Your task to perform on an android device: Go to location settings Image 0: 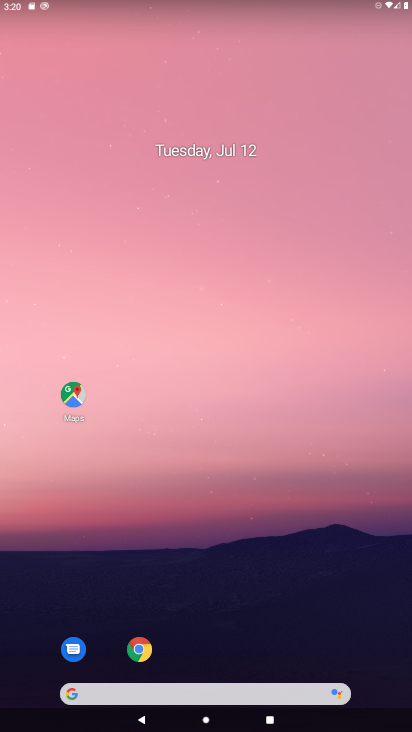
Step 0: press home button
Your task to perform on an android device: Go to location settings Image 1: 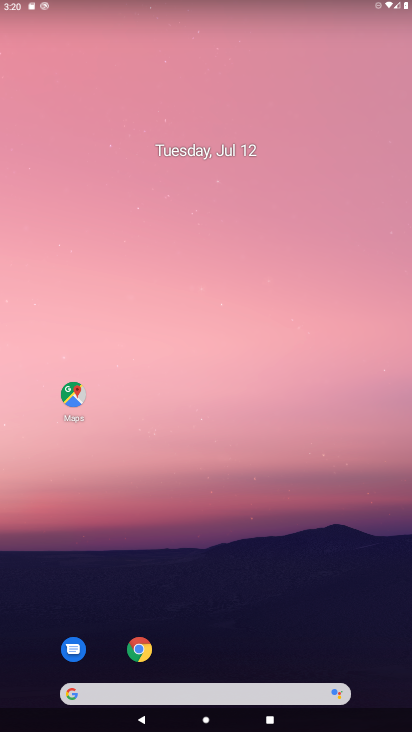
Step 1: click (223, 609)
Your task to perform on an android device: Go to location settings Image 2: 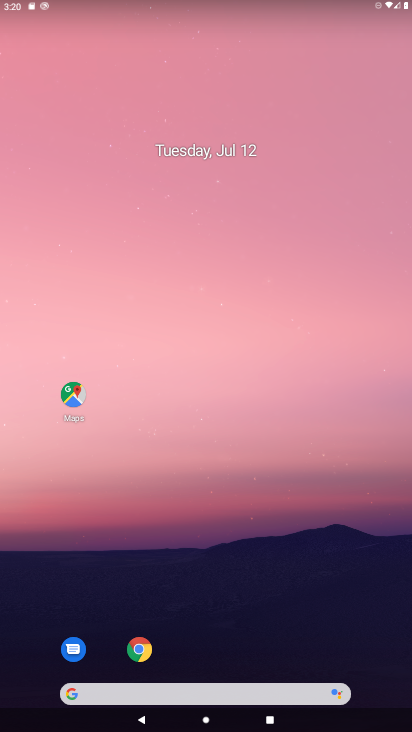
Step 2: drag from (247, 625) to (185, 158)
Your task to perform on an android device: Go to location settings Image 3: 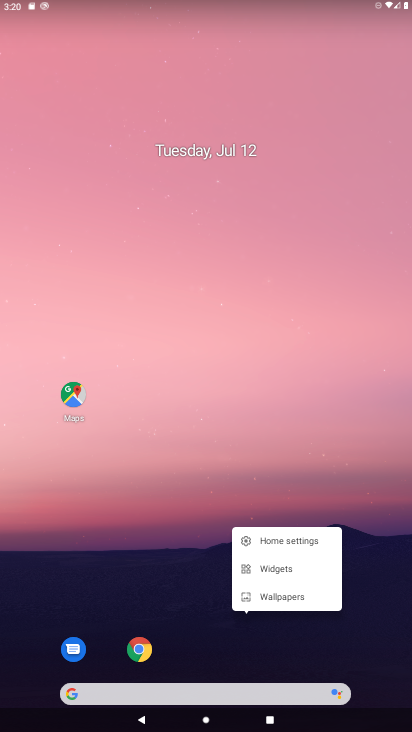
Step 3: click (206, 301)
Your task to perform on an android device: Go to location settings Image 4: 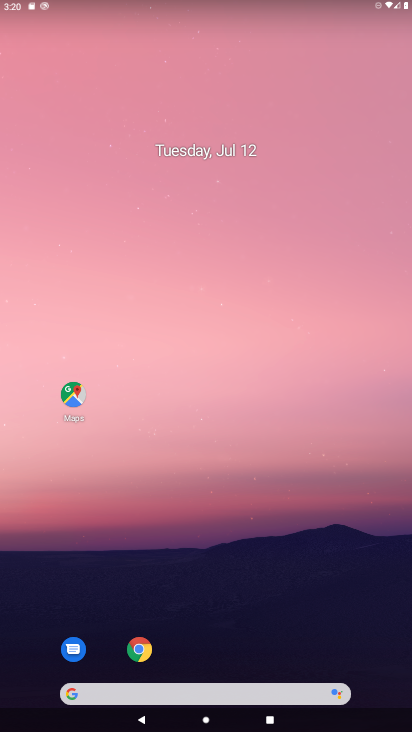
Step 4: drag from (280, 604) to (272, 264)
Your task to perform on an android device: Go to location settings Image 5: 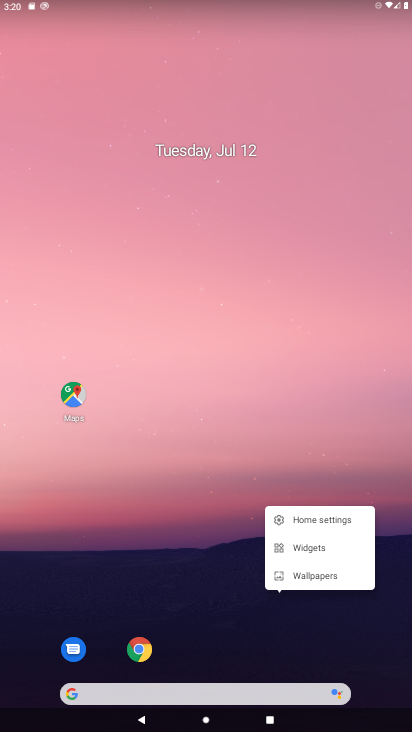
Step 5: click (236, 333)
Your task to perform on an android device: Go to location settings Image 6: 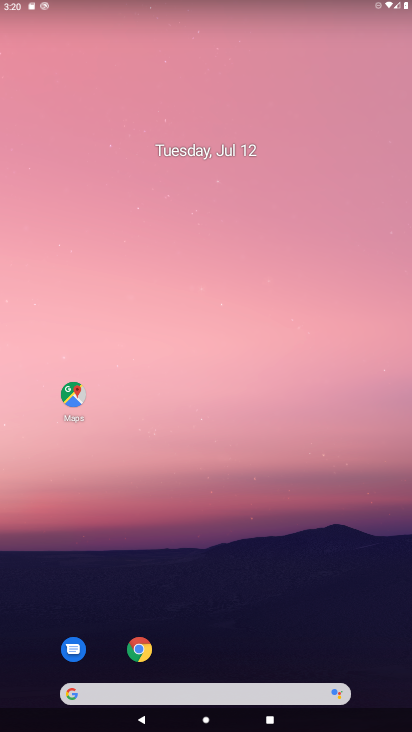
Step 6: drag from (230, 646) to (201, 50)
Your task to perform on an android device: Go to location settings Image 7: 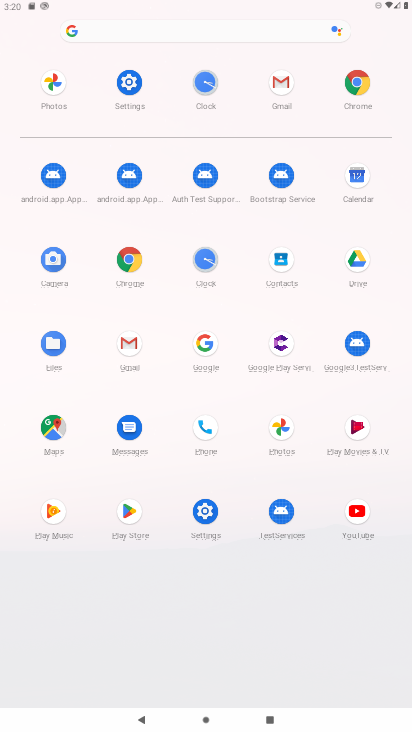
Step 7: click (116, 68)
Your task to perform on an android device: Go to location settings Image 8: 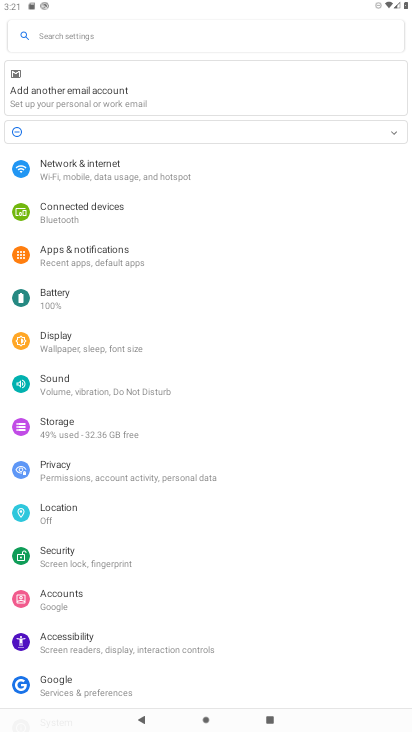
Step 8: click (74, 514)
Your task to perform on an android device: Go to location settings Image 9: 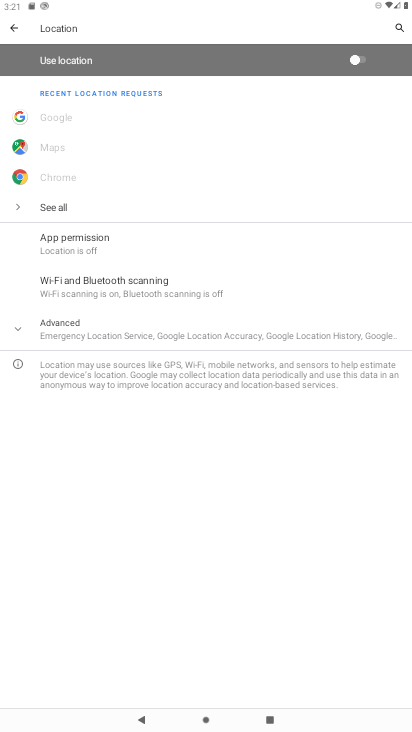
Step 9: task complete